Your task to perform on an android device: see tabs open on other devices in the chrome app Image 0: 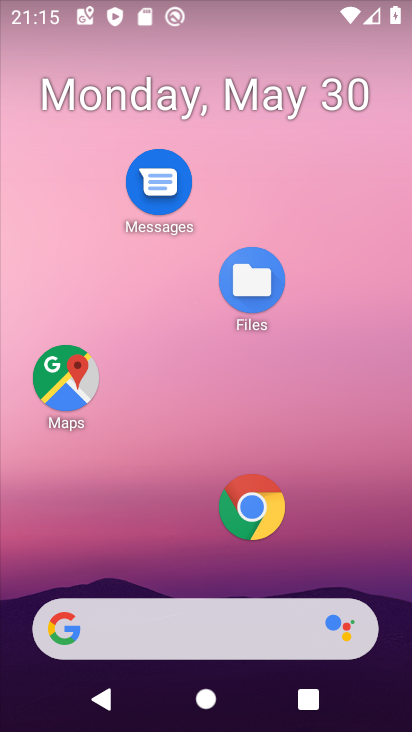
Step 0: click (255, 512)
Your task to perform on an android device: see tabs open on other devices in the chrome app Image 1: 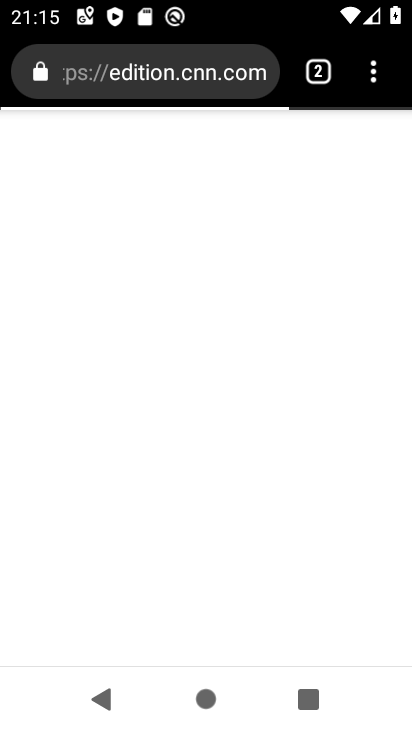
Step 1: click (374, 72)
Your task to perform on an android device: see tabs open on other devices in the chrome app Image 2: 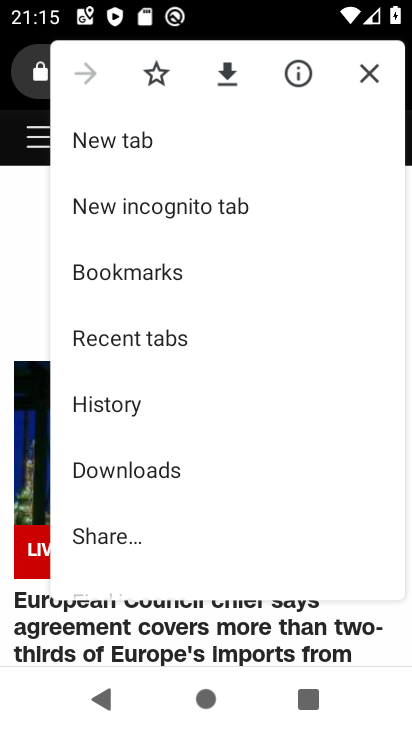
Step 2: click (143, 331)
Your task to perform on an android device: see tabs open on other devices in the chrome app Image 3: 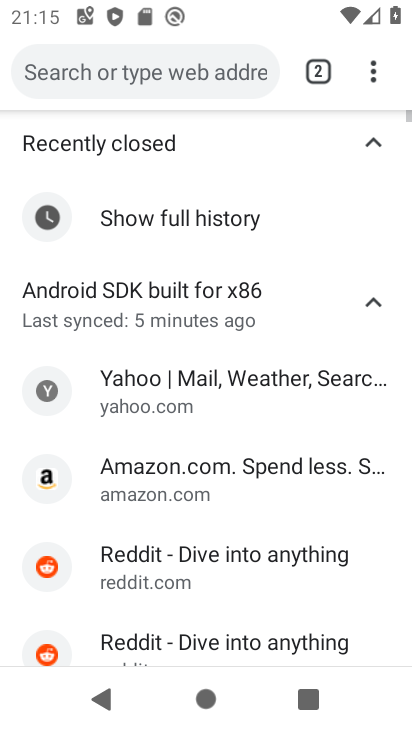
Step 3: task complete